Your task to perform on an android device: turn on improve location accuracy Image 0: 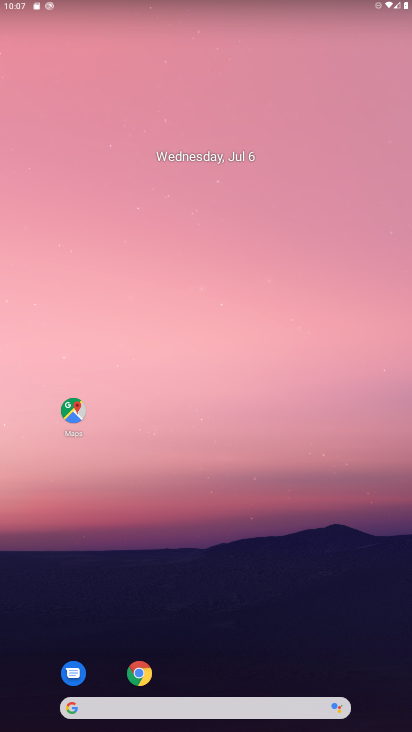
Step 0: drag from (260, 493) to (255, 622)
Your task to perform on an android device: turn on improve location accuracy Image 1: 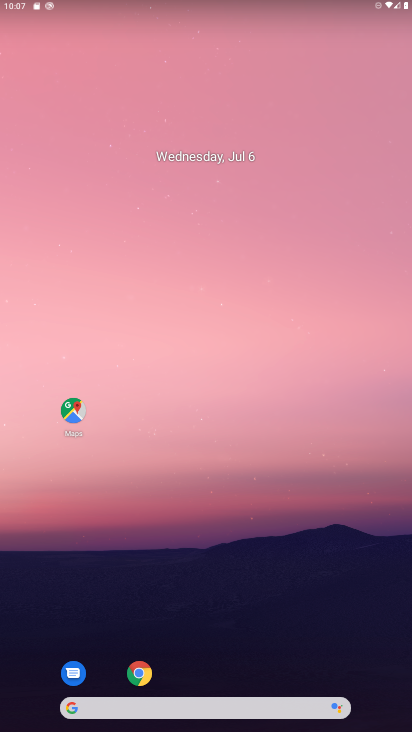
Step 1: drag from (174, 1) to (260, 552)
Your task to perform on an android device: turn on improve location accuracy Image 2: 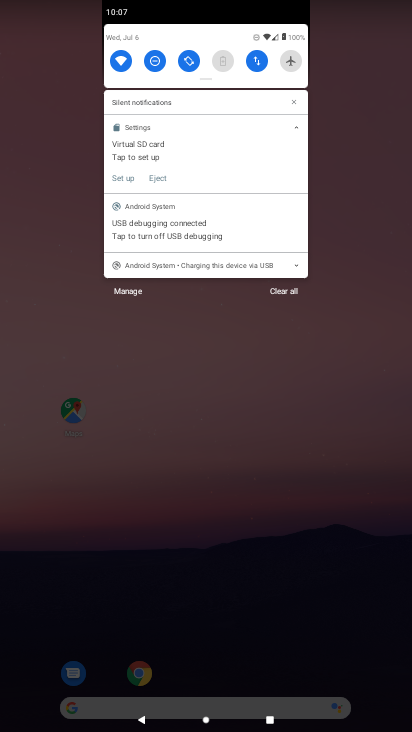
Step 2: drag from (229, 39) to (228, 590)
Your task to perform on an android device: turn on improve location accuracy Image 3: 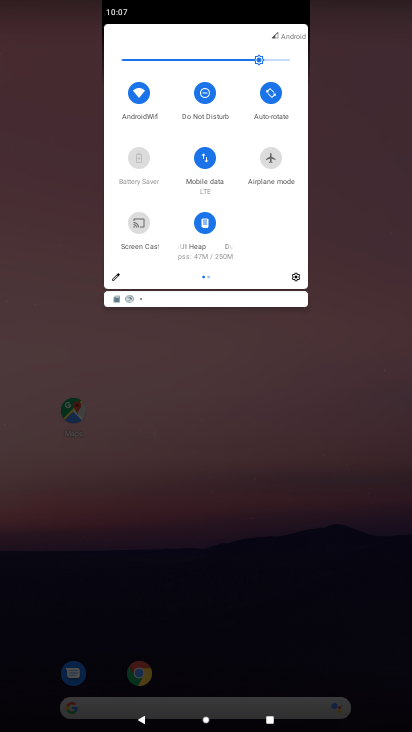
Step 3: click (297, 282)
Your task to perform on an android device: turn on improve location accuracy Image 4: 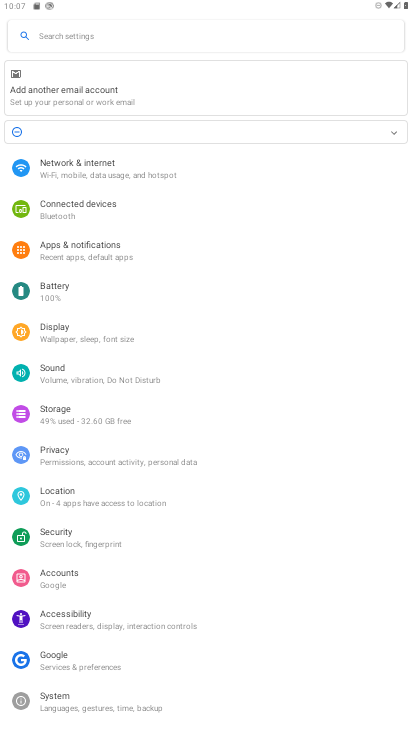
Step 4: click (97, 282)
Your task to perform on an android device: turn on improve location accuracy Image 5: 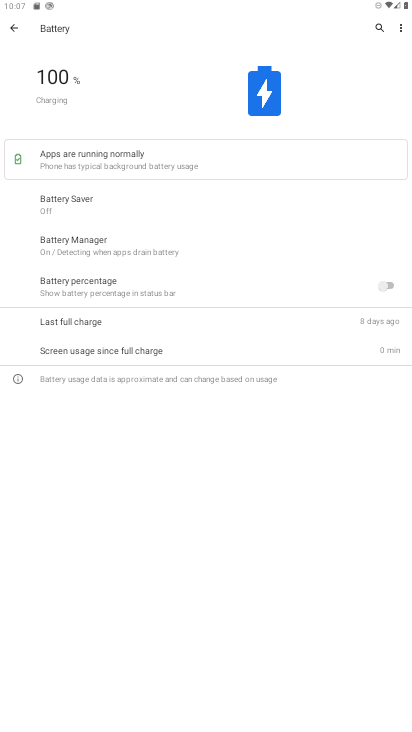
Step 5: click (400, 25)
Your task to perform on an android device: turn on improve location accuracy Image 6: 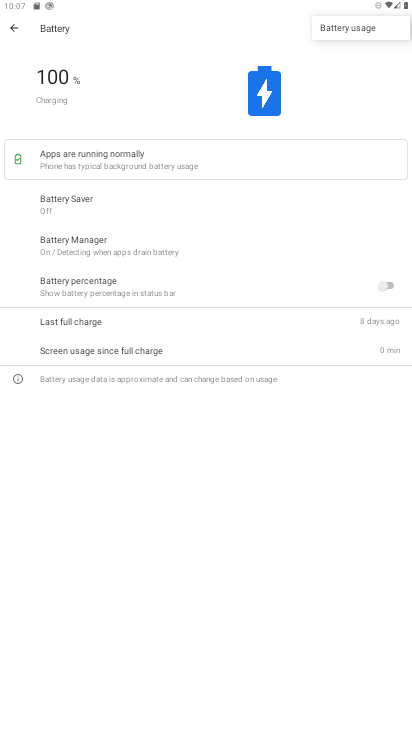
Step 6: click (374, 26)
Your task to perform on an android device: turn on improve location accuracy Image 7: 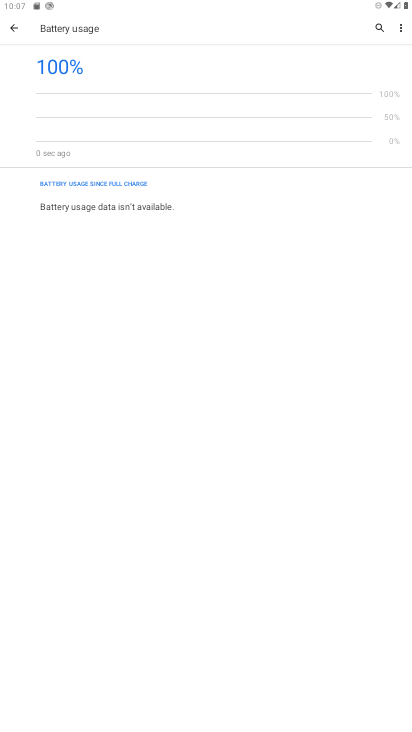
Step 7: task complete